Your task to perform on an android device: turn on sleep mode Image 0: 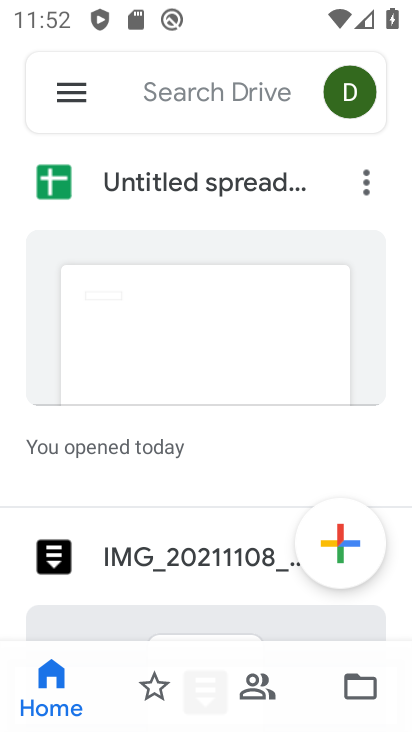
Step 0: press home button
Your task to perform on an android device: turn on sleep mode Image 1: 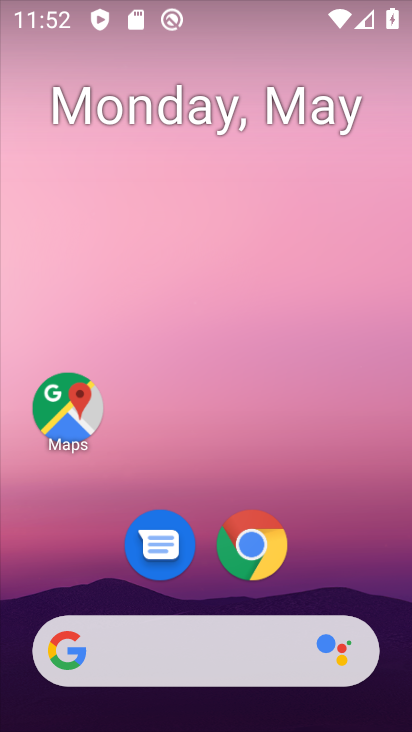
Step 1: drag from (317, 473) to (262, 151)
Your task to perform on an android device: turn on sleep mode Image 2: 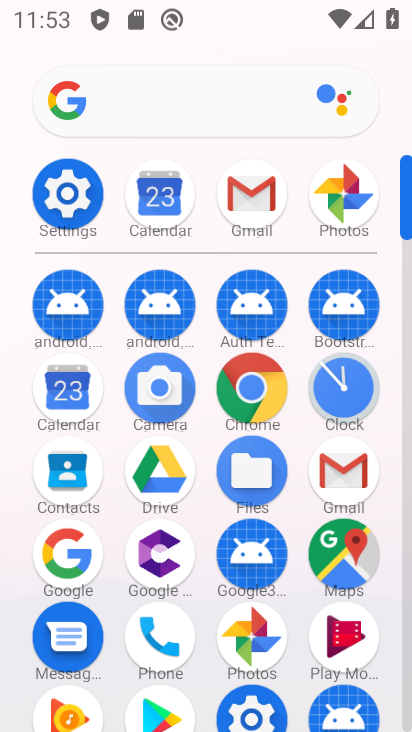
Step 2: click (67, 197)
Your task to perform on an android device: turn on sleep mode Image 3: 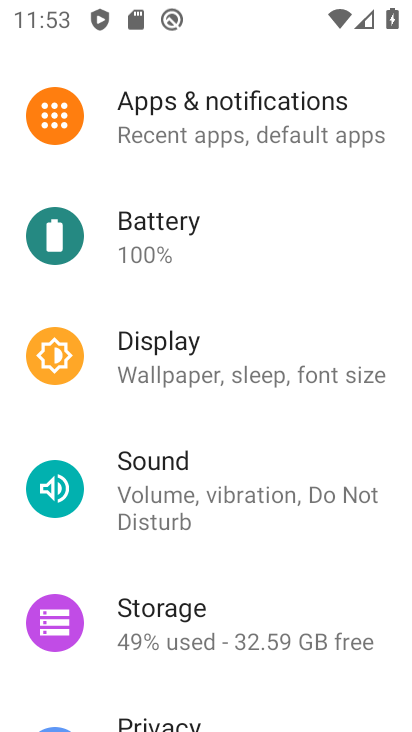
Step 3: click (141, 350)
Your task to perform on an android device: turn on sleep mode Image 4: 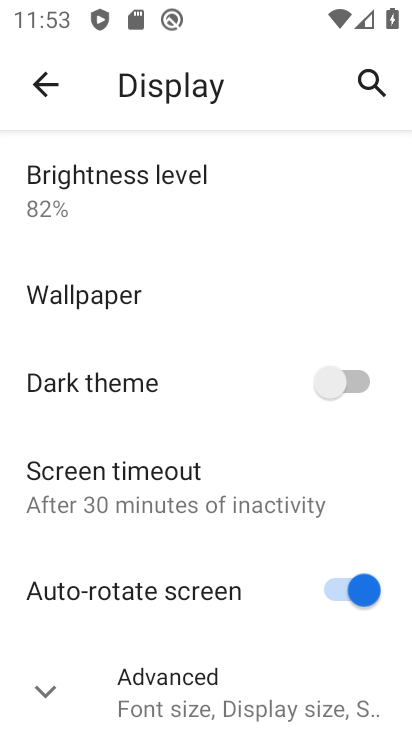
Step 4: drag from (180, 628) to (148, 370)
Your task to perform on an android device: turn on sleep mode Image 5: 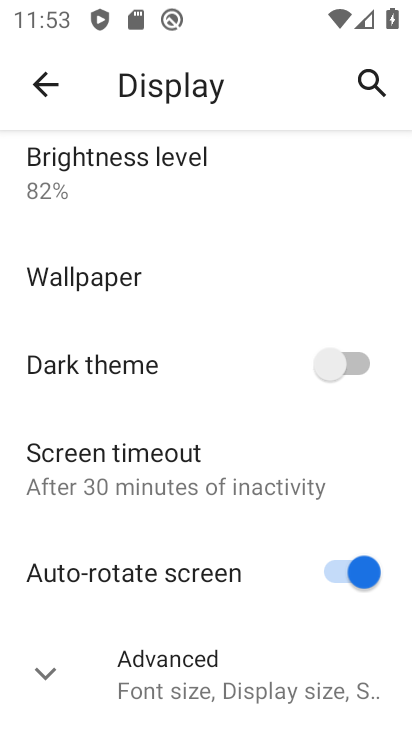
Step 5: click (166, 673)
Your task to perform on an android device: turn on sleep mode Image 6: 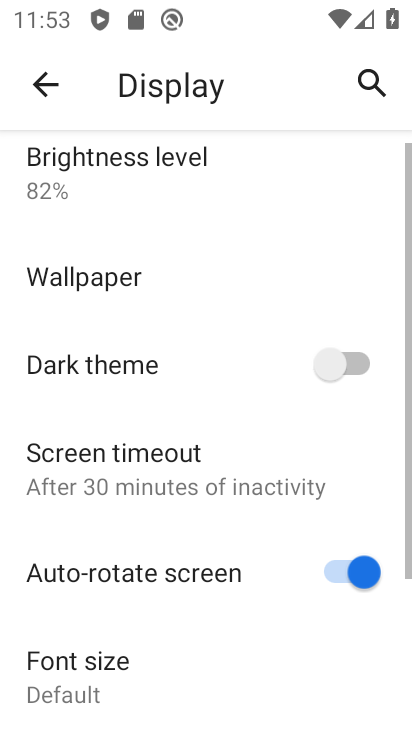
Step 6: task complete